Your task to perform on an android device: Open Youtube and go to the subscriptions tab Image 0: 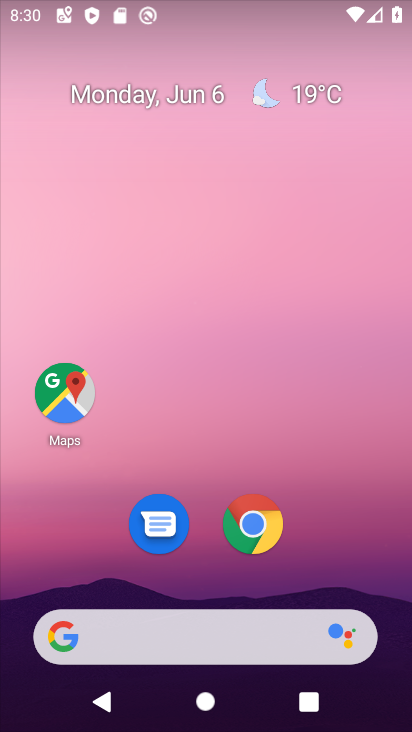
Step 0: drag from (217, 448) to (200, 39)
Your task to perform on an android device: Open Youtube and go to the subscriptions tab Image 1: 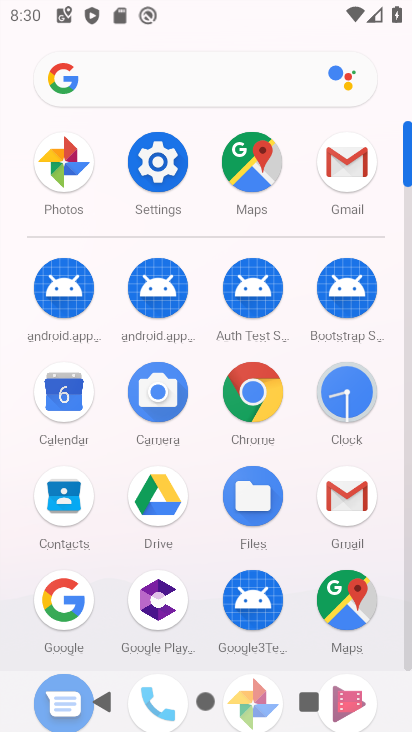
Step 1: drag from (207, 403) to (206, 144)
Your task to perform on an android device: Open Youtube and go to the subscriptions tab Image 2: 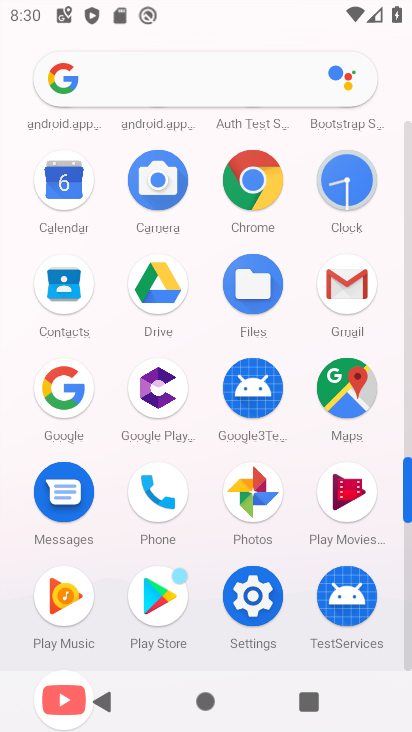
Step 2: drag from (130, 517) to (117, 214)
Your task to perform on an android device: Open Youtube and go to the subscriptions tab Image 3: 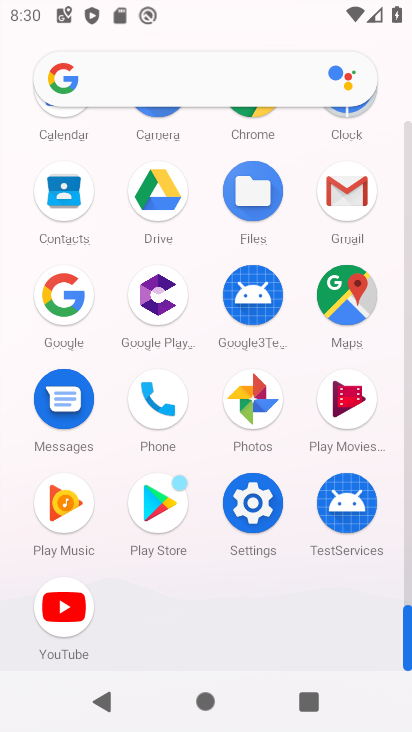
Step 3: click (61, 587)
Your task to perform on an android device: Open Youtube and go to the subscriptions tab Image 4: 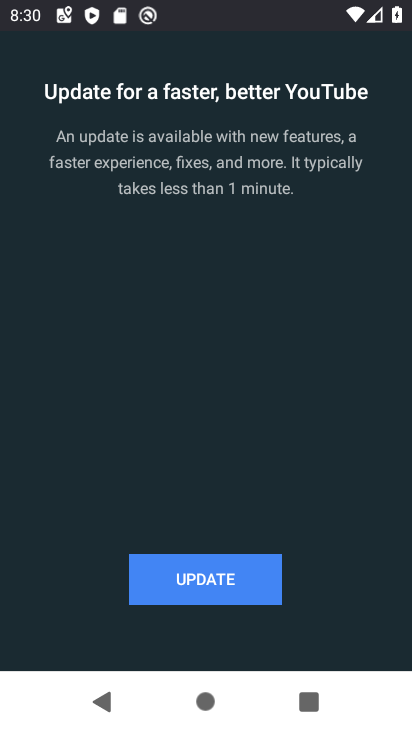
Step 4: click (145, 581)
Your task to perform on an android device: Open Youtube and go to the subscriptions tab Image 5: 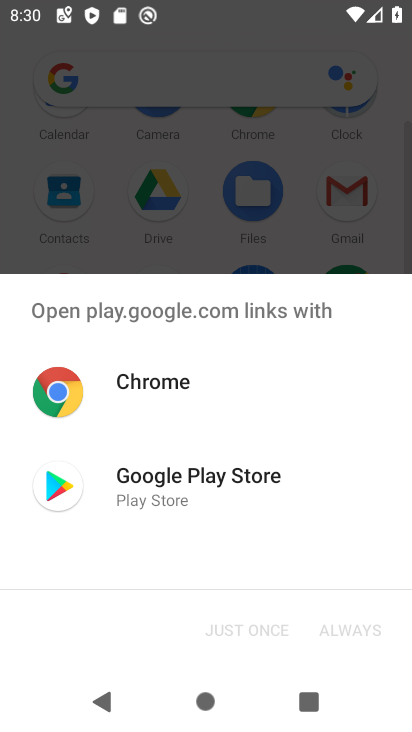
Step 5: click (139, 497)
Your task to perform on an android device: Open Youtube and go to the subscriptions tab Image 6: 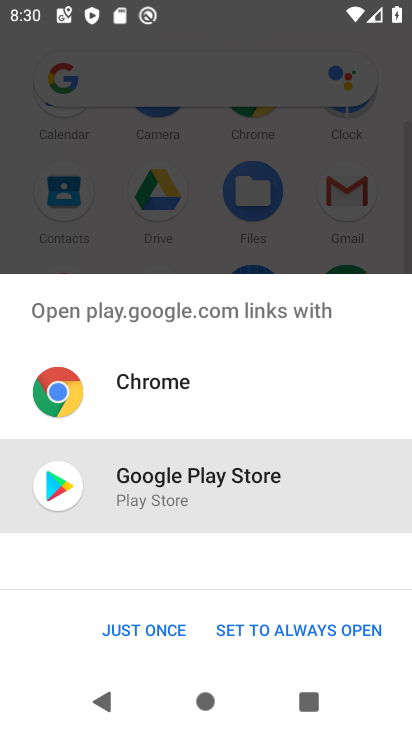
Step 6: click (136, 624)
Your task to perform on an android device: Open Youtube and go to the subscriptions tab Image 7: 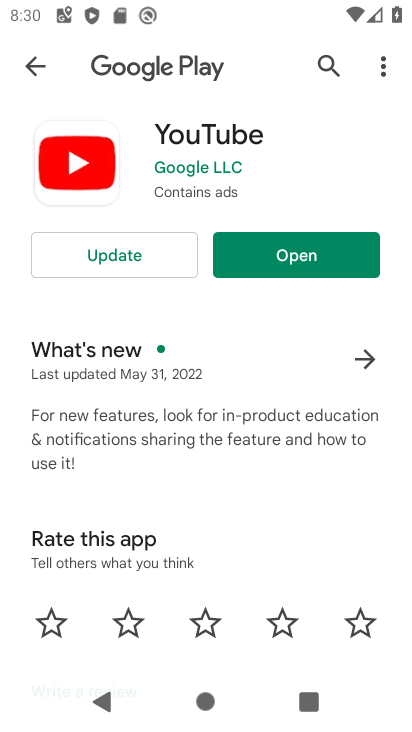
Step 7: click (303, 251)
Your task to perform on an android device: Open Youtube and go to the subscriptions tab Image 8: 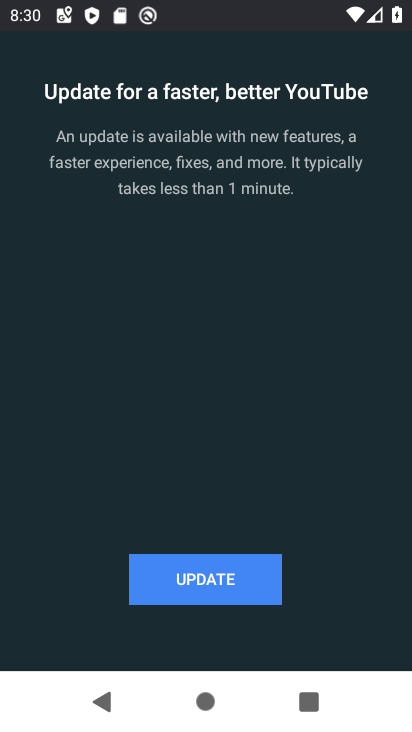
Step 8: click (238, 588)
Your task to perform on an android device: Open Youtube and go to the subscriptions tab Image 9: 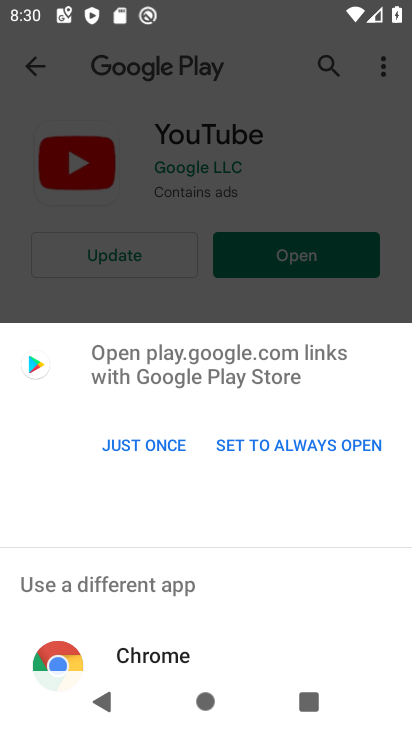
Step 9: click (147, 433)
Your task to perform on an android device: Open Youtube and go to the subscriptions tab Image 10: 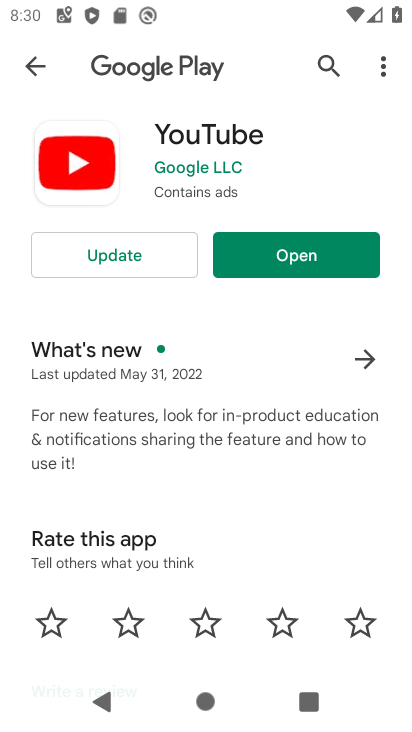
Step 10: click (156, 258)
Your task to perform on an android device: Open Youtube and go to the subscriptions tab Image 11: 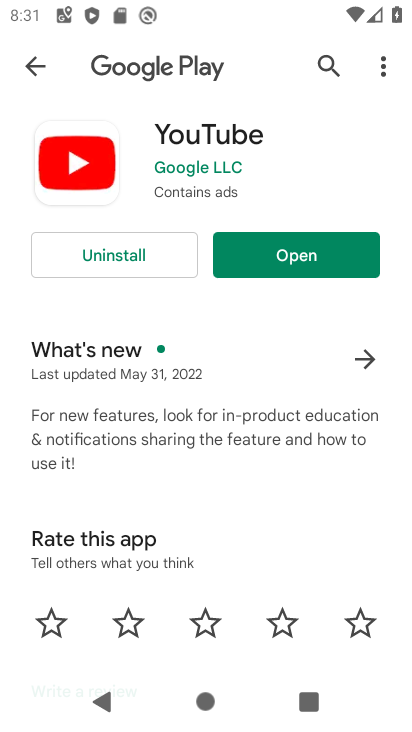
Step 11: click (368, 260)
Your task to perform on an android device: Open Youtube and go to the subscriptions tab Image 12: 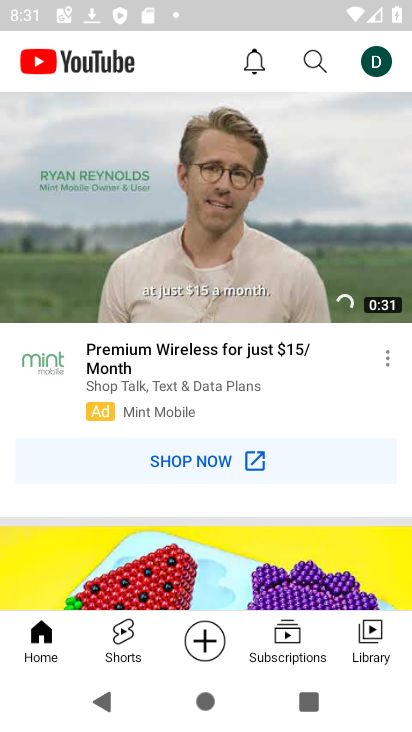
Step 12: click (297, 632)
Your task to perform on an android device: Open Youtube and go to the subscriptions tab Image 13: 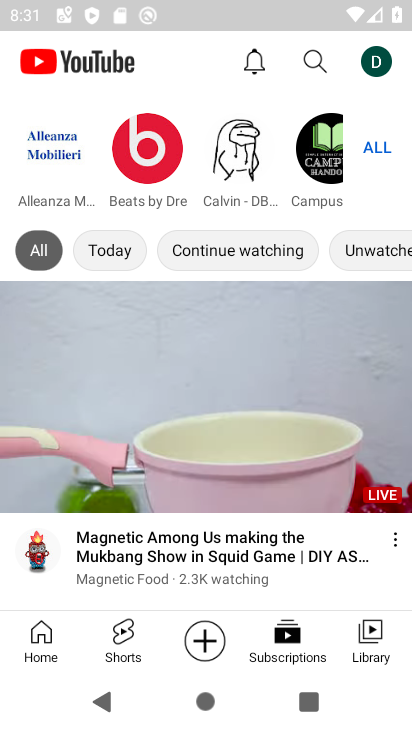
Step 13: task complete